Your task to perform on an android device: Open Chrome and go to settings Image 0: 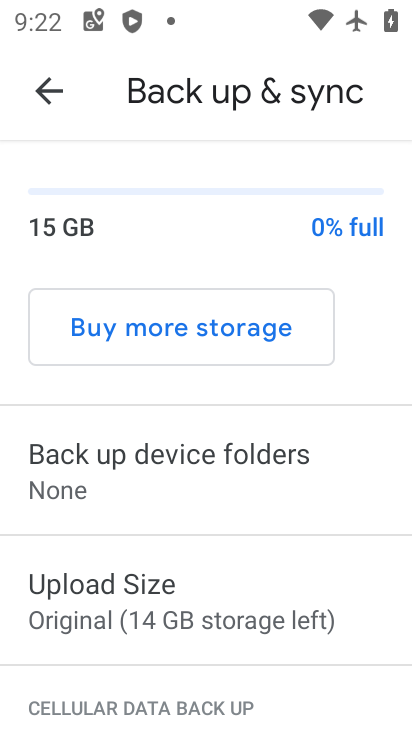
Step 0: press home button
Your task to perform on an android device: Open Chrome and go to settings Image 1: 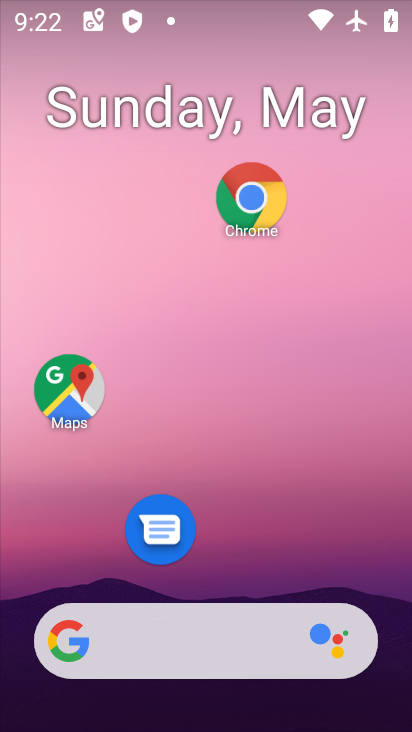
Step 1: click (255, 197)
Your task to perform on an android device: Open Chrome and go to settings Image 2: 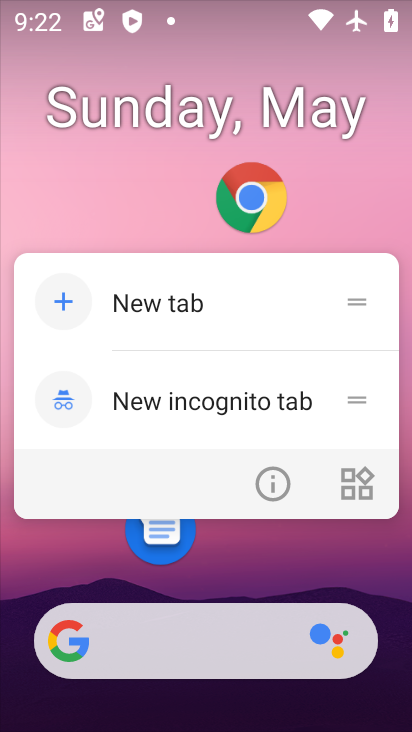
Step 2: click (252, 196)
Your task to perform on an android device: Open Chrome and go to settings Image 3: 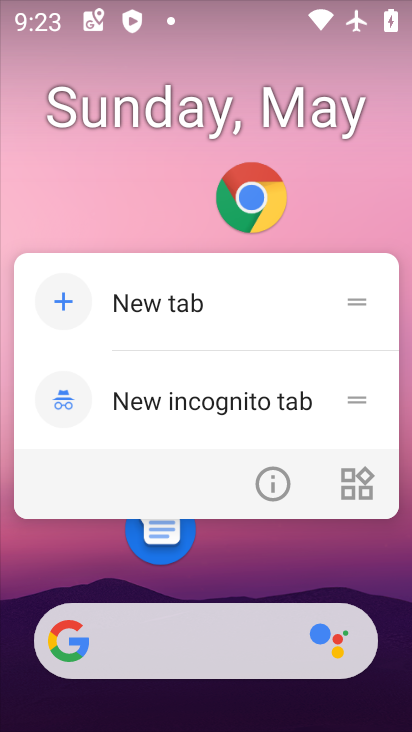
Step 3: click (240, 200)
Your task to perform on an android device: Open Chrome and go to settings Image 4: 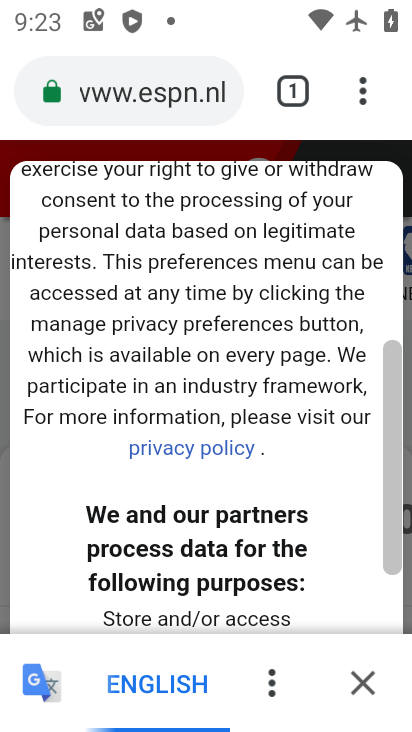
Step 4: click (356, 94)
Your task to perform on an android device: Open Chrome and go to settings Image 5: 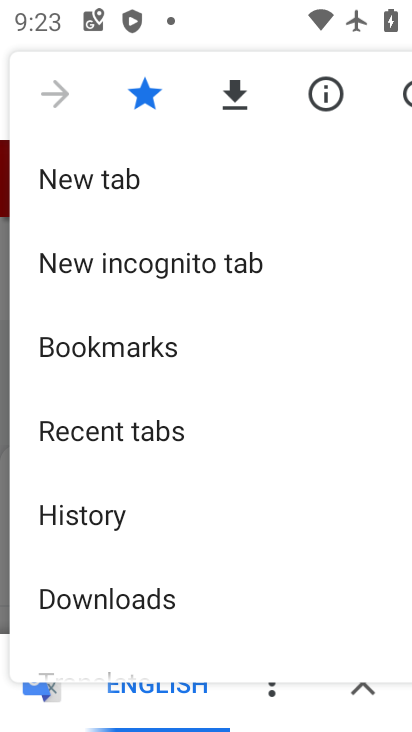
Step 5: drag from (212, 598) to (280, 272)
Your task to perform on an android device: Open Chrome and go to settings Image 6: 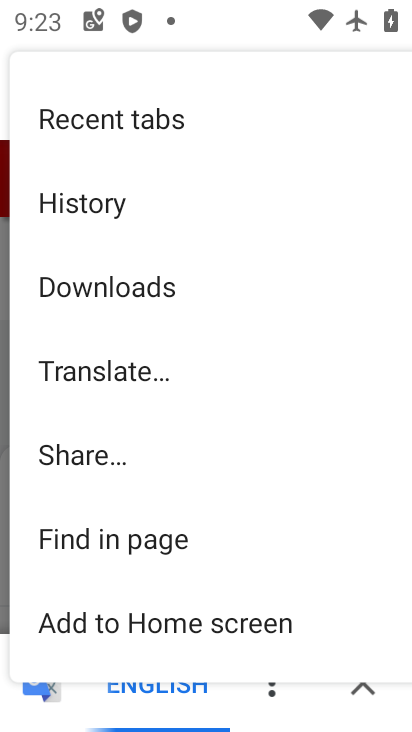
Step 6: drag from (236, 598) to (289, 297)
Your task to perform on an android device: Open Chrome and go to settings Image 7: 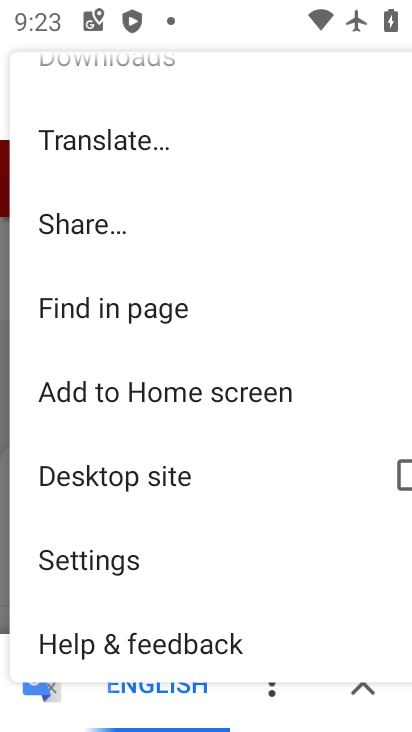
Step 7: click (188, 560)
Your task to perform on an android device: Open Chrome and go to settings Image 8: 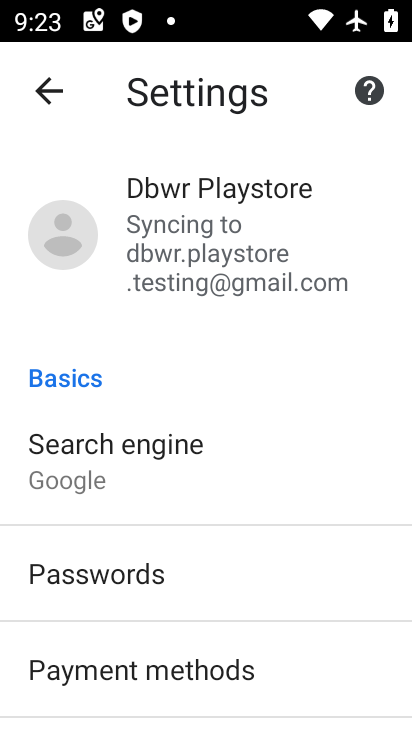
Step 8: task complete